Your task to perform on an android device: Find coffee shops on Maps Image 0: 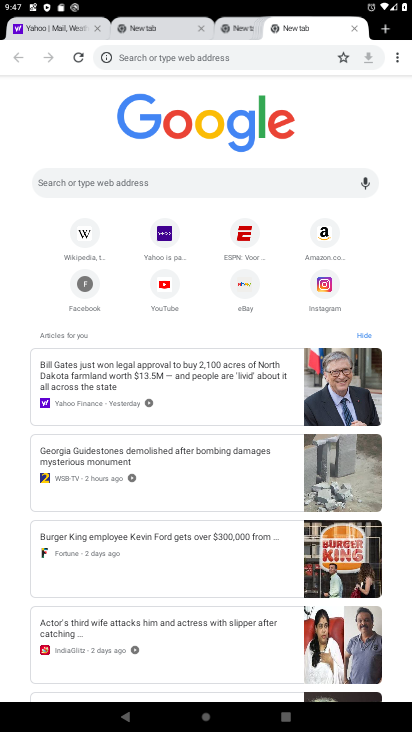
Step 0: press home button
Your task to perform on an android device: Find coffee shops on Maps Image 1: 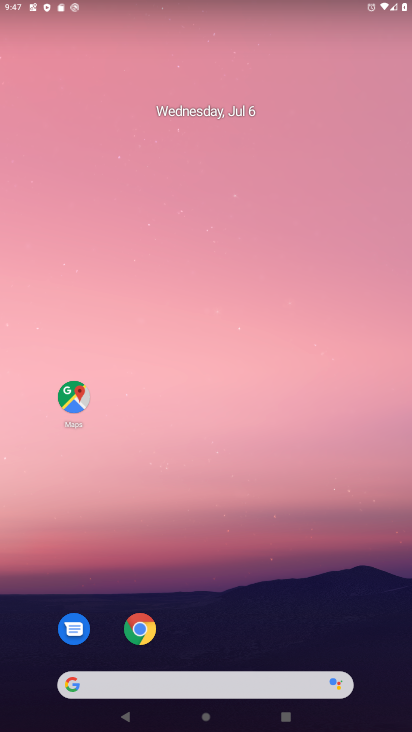
Step 1: click (69, 400)
Your task to perform on an android device: Find coffee shops on Maps Image 2: 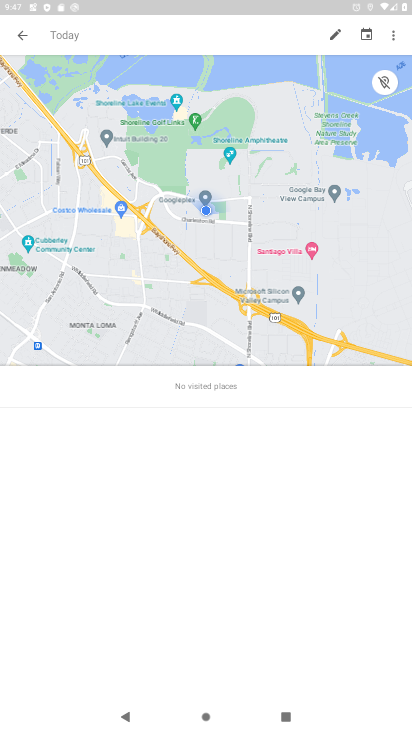
Step 2: click (166, 31)
Your task to perform on an android device: Find coffee shops on Maps Image 3: 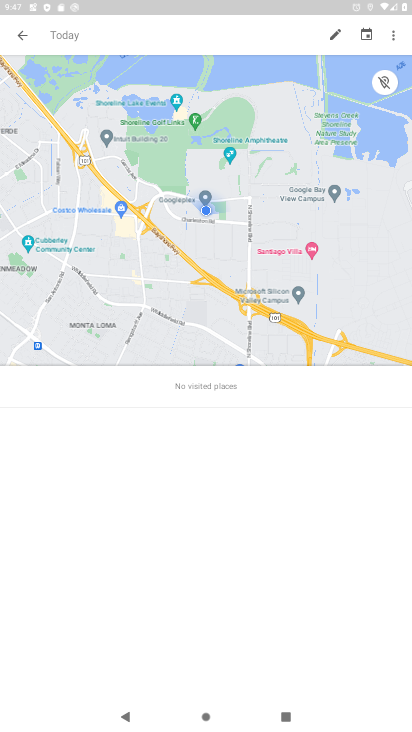
Step 3: click (20, 31)
Your task to perform on an android device: Find coffee shops on Maps Image 4: 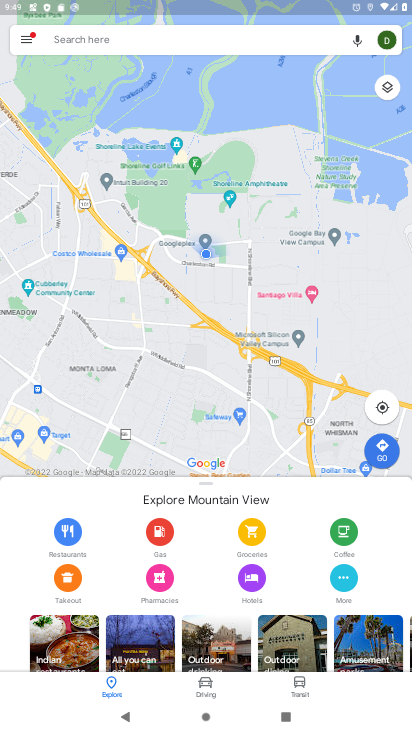
Step 4: click (125, 37)
Your task to perform on an android device: Find coffee shops on Maps Image 5: 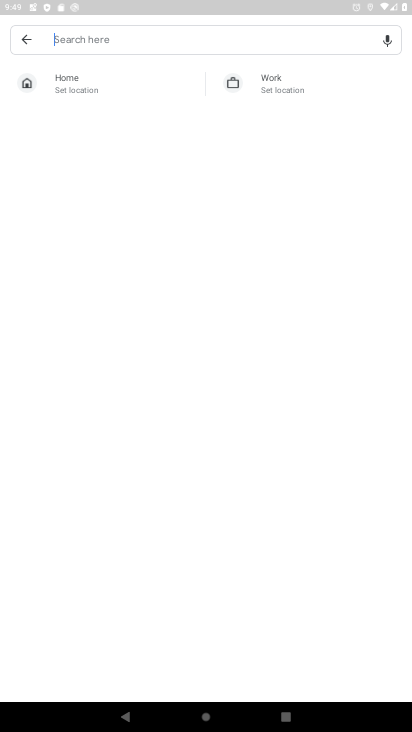
Step 5: type "coffee "
Your task to perform on an android device: Find coffee shops on Maps Image 6: 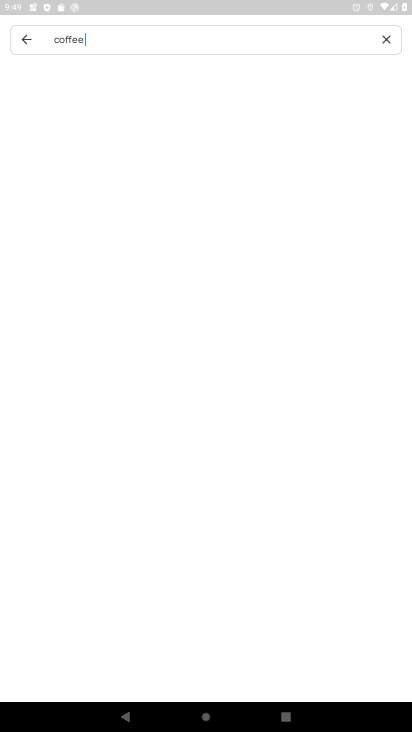
Step 6: type ""
Your task to perform on an android device: Find coffee shops on Maps Image 7: 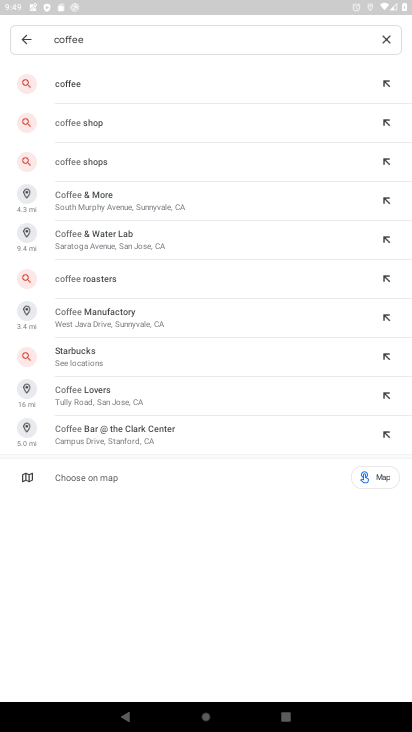
Step 7: click (135, 73)
Your task to perform on an android device: Find coffee shops on Maps Image 8: 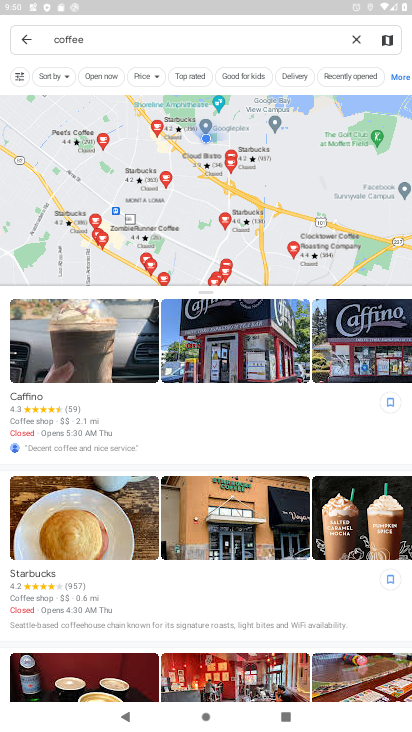
Step 8: task complete